Your task to perform on an android device: Turn off the flashlight Image 0: 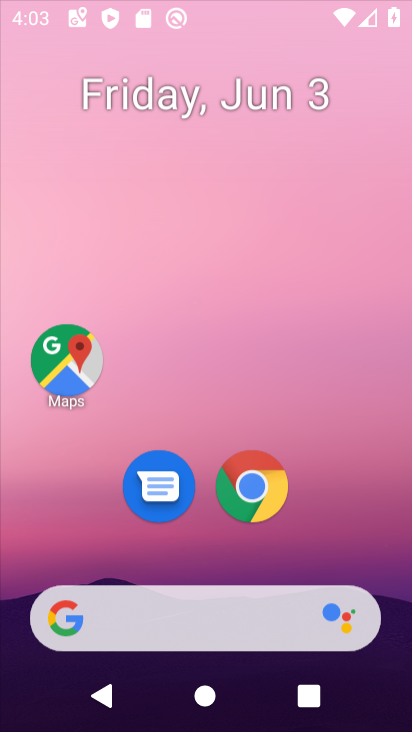
Step 0: click (271, 112)
Your task to perform on an android device: Turn off the flashlight Image 1: 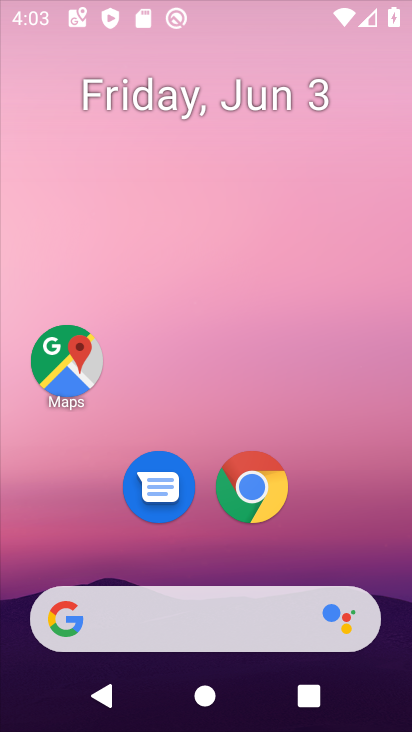
Step 1: drag from (198, 526) to (270, 125)
Your task to perform on an android device: Turn off the flashlight Image 2: 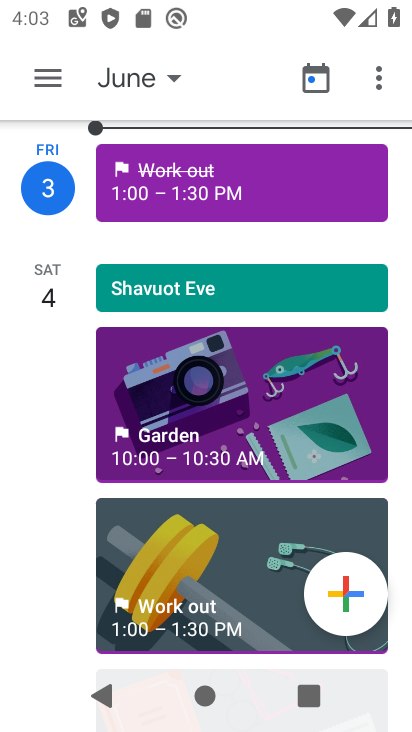
Step 2: press home button
Your task to perform on an android device: Turn off the flashlight Image 3: 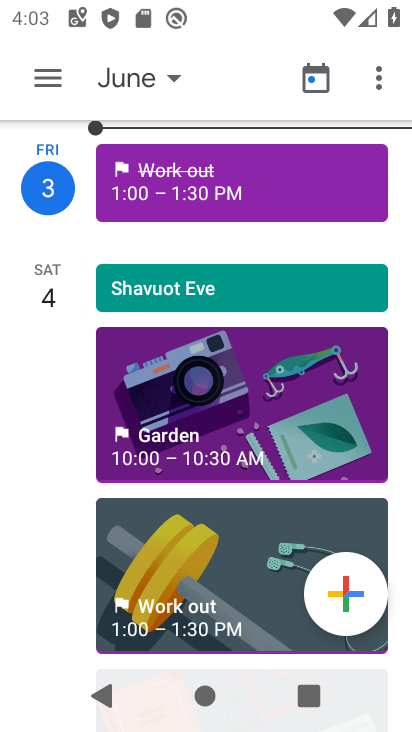
Step 3: press home button
Your task to perform on an android device: Turn off the flashlight Image 4: 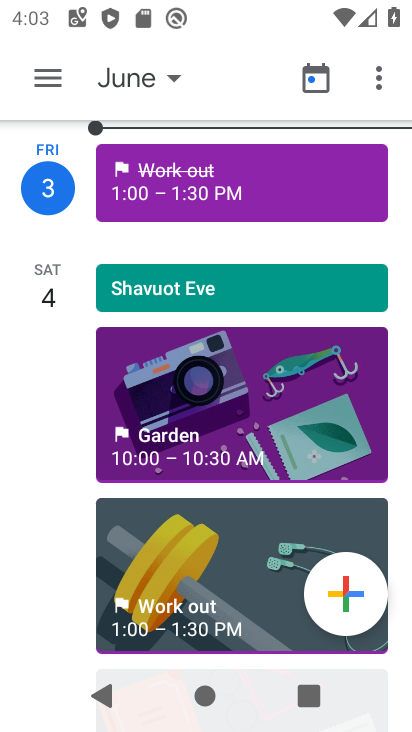
Step 4: drag from (289, 55) to (294, 0)
Your task to perform on an android device: Turn off the flashlight Image 5: 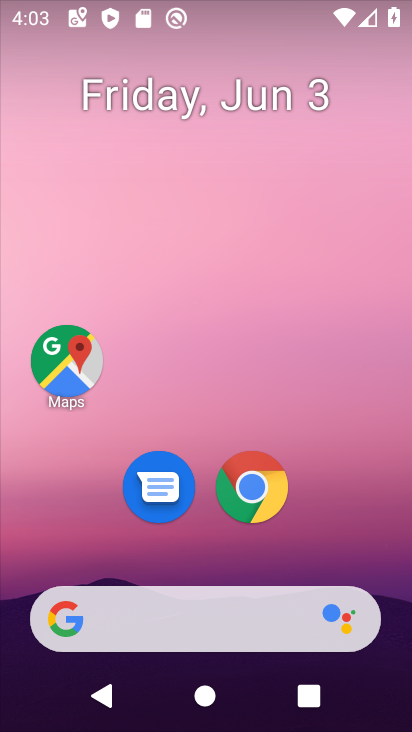
Step 5: drag from (212, 496) to (274, 19)
Your task to perform on an android device: Turn off the flashlight Image 6: 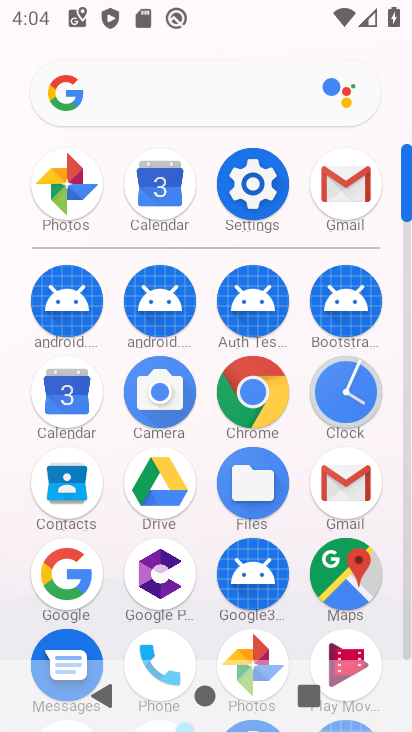
Step 6: click (250, 185)
Your task to perform on an android device: Turn off the flashlight Image 7: 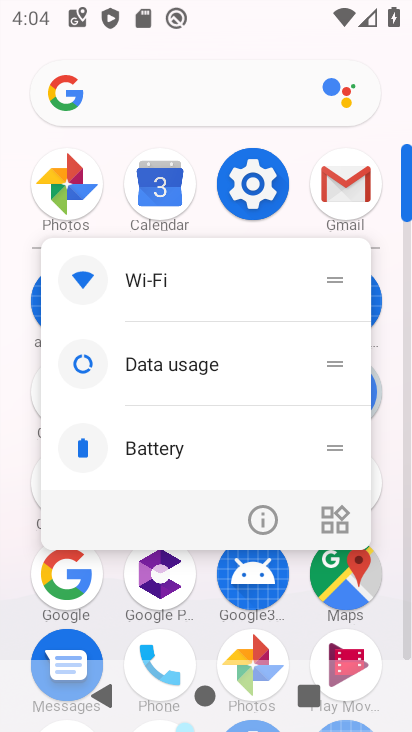
Step 7: click (272, 520)
Your task to perform on an android device: Turn off the flashlight Image 8: 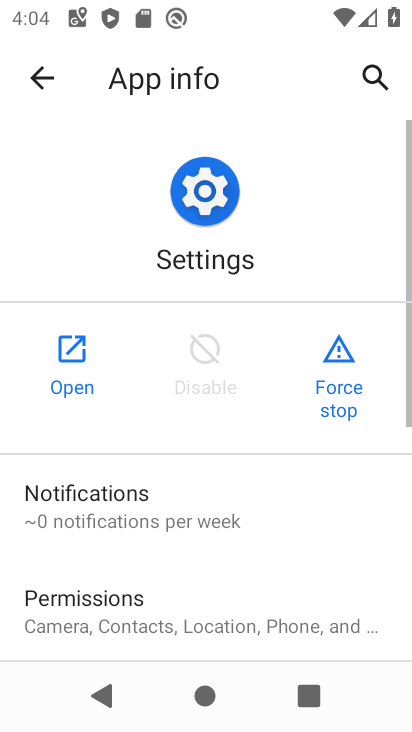
Step 8: click (72, 340)
Your task to perform on an android device: Turn off the flashlight Image 9: 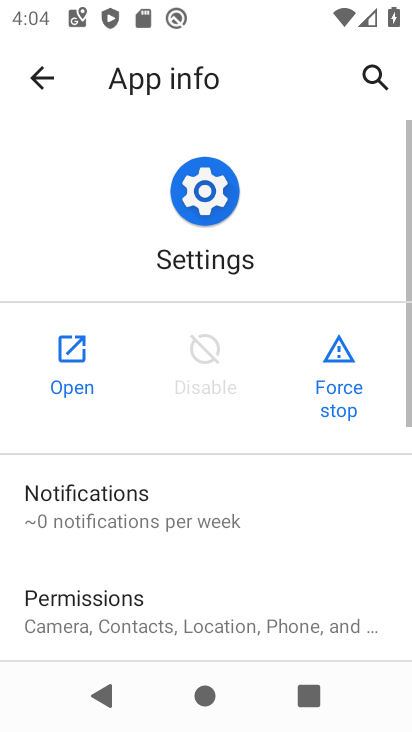
Step 9: click (72, 341)
Your task to perform on an android device: Turn off the flashlight Image 10: 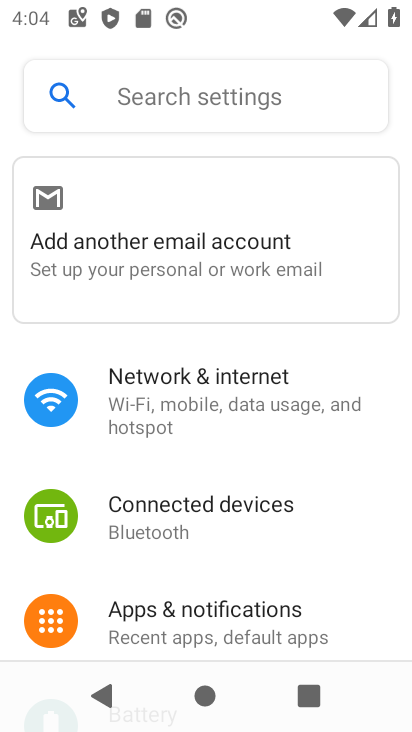
Step 10: drag from (211, 599) to (318, 41)
Your task to perform on an android device: Turn off the flashlight Image 11: 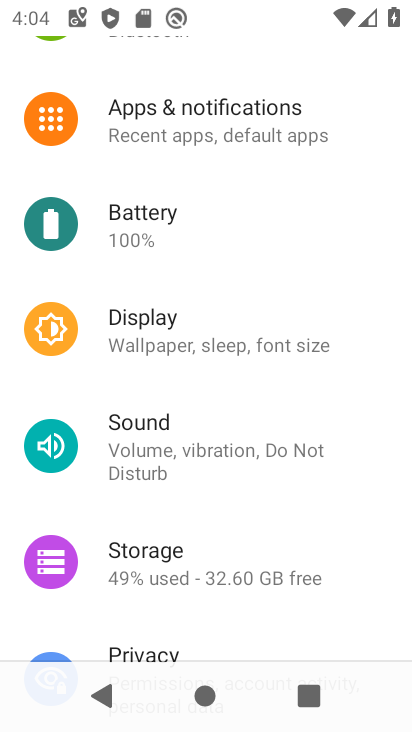
Step 11: drag from (216, 173) to (209, 724)
Your task to perform on an android device: Turn off the flashlight Image 12: 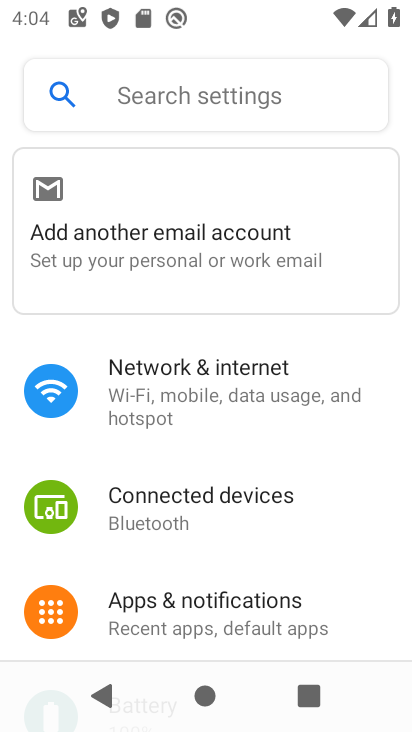
Step 12: click (221, 91)
Your task to perform on an android device: Turn off the flashlight Image 13: 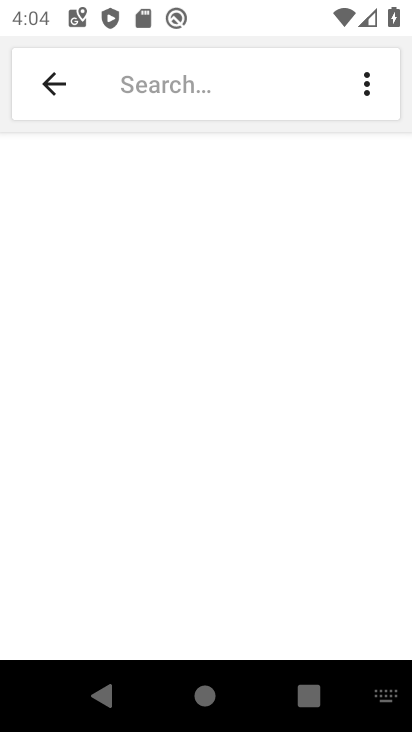
Step 13: click (157, 85)
Your task to perform on an android device: Turn off the flashlight Image 14: 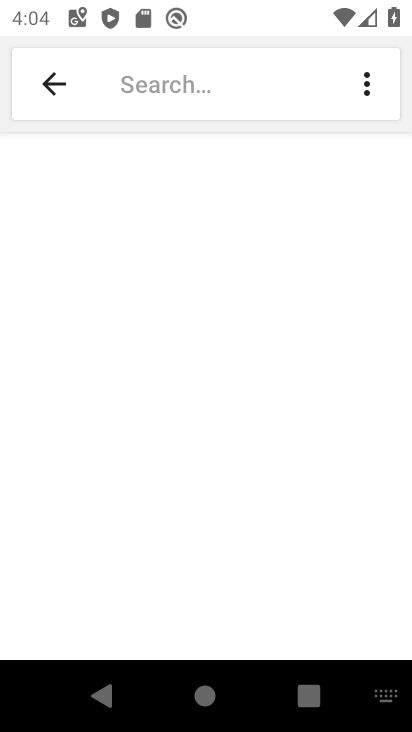
Step 14: type "flashlight"
Your task to perform on an android device: Turn off the flashlight Image 15: 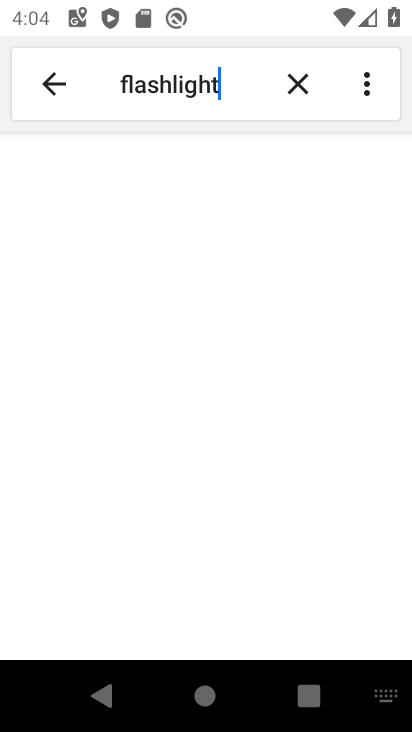
Step 15: type ""
Your task to perform on an android device: Turn off the flashlight Image 16: 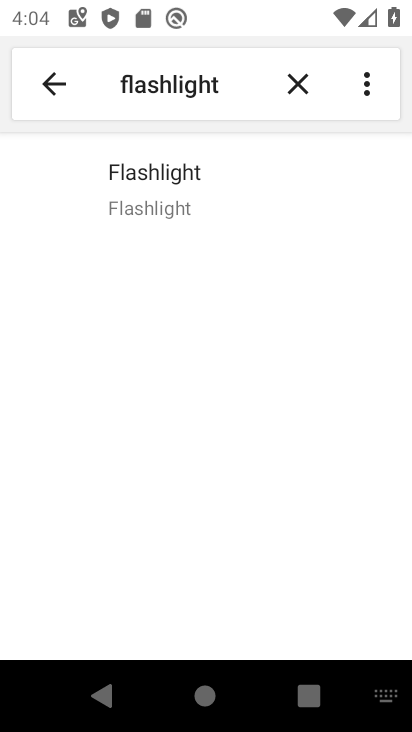
Step 16: click (175, 183)
Your task to perform on an android device: Turn off the flashlight Image 17: 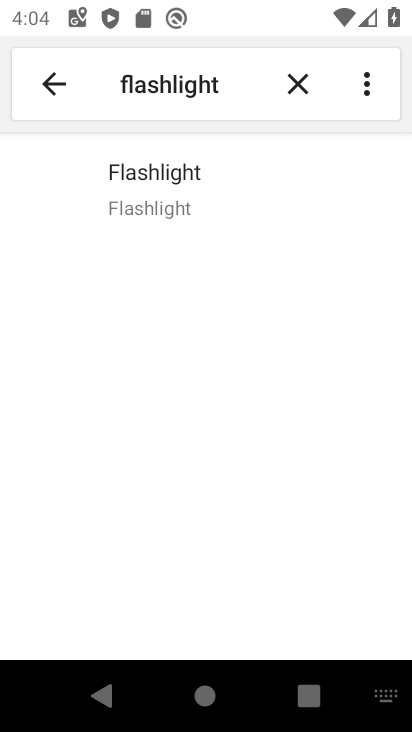
Step 17: task complete